Your task to perform on an android device: Is it going to rain this weekend? Image 0: 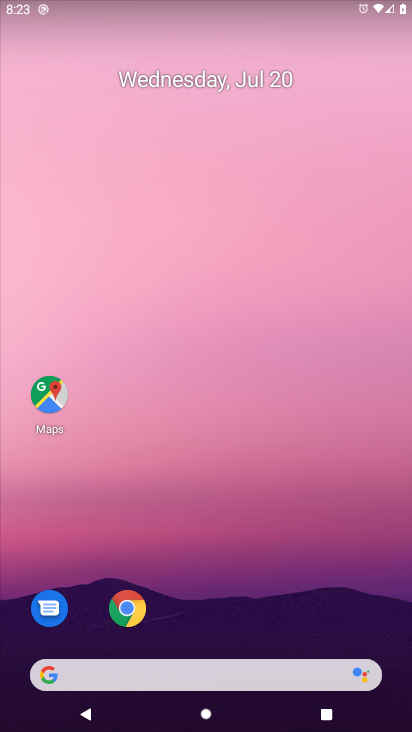
Step 0: click (279, 655)
Your task to perform on an android device: Is it going to rain this weekend? Image 1: 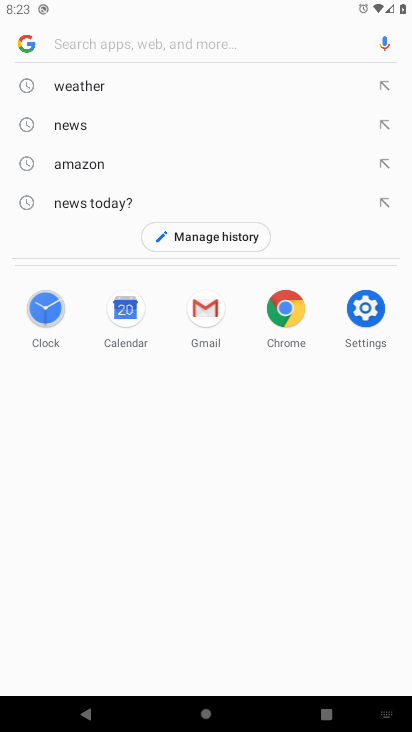
Step 1: click (107, 86)
Your task to perform on an android device: Is it going to rain this weekend? Image 2: 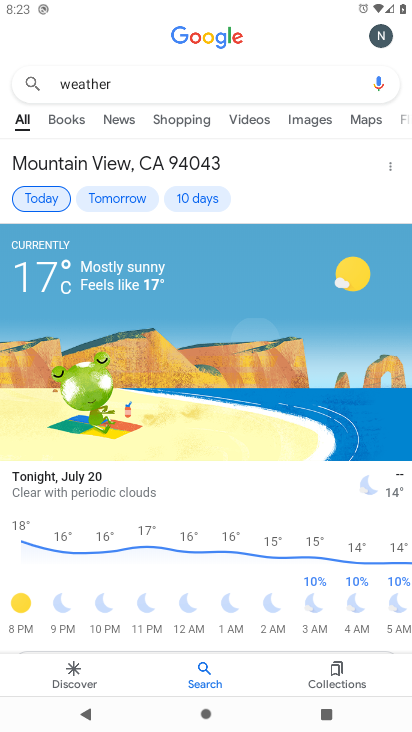
Step 2: click (205, 205)
Your task to perform on an android device: Is it going to rain this weekend? Image 3: 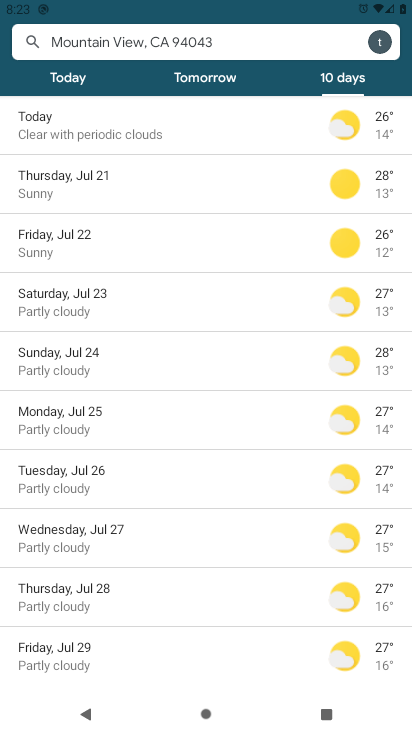
Step 3: task complete